Your task to perform on an android device: Add razer blade to the cart on walmart, then select checkout. Image 0: 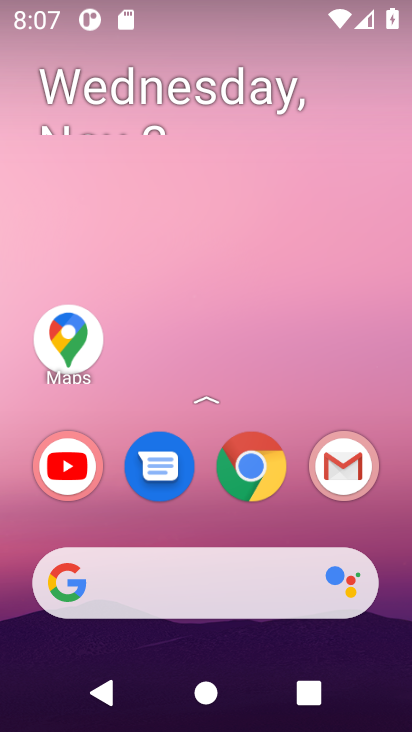
Step 0: click (171, 575)
Your task to perform on an android device: Add razer blade to the cart on walmart, then select checkout. Image 1: 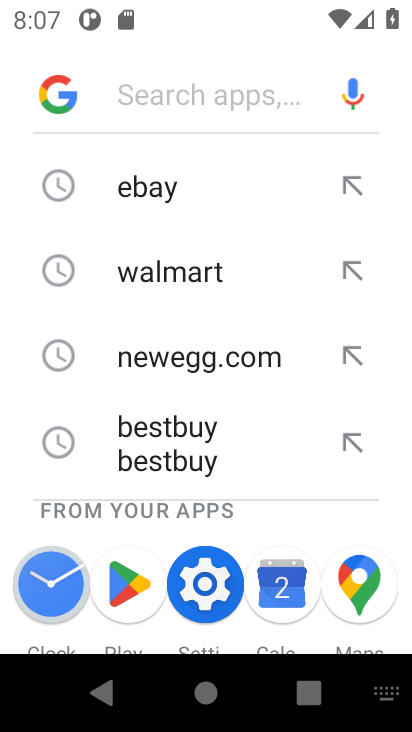
Step 1: click (199, 292)
Your task to perform on an android device: Add razer blade to the cart on walmart, then select checkout. Image 2: 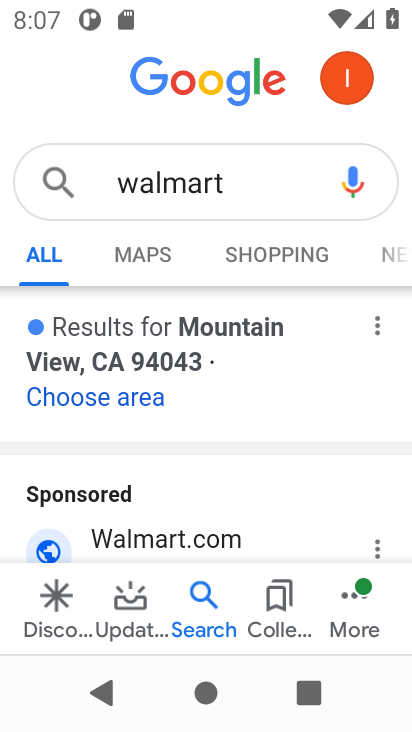
Step 2: drag from (209, 495) to (184, 225)
Your task to perform on an android device: Add razer blade to the cart on walmart, then select checkout. Image 3: 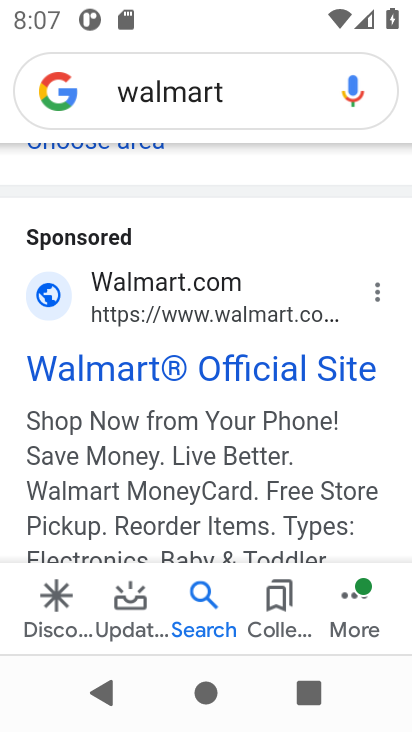
Step 3: click (174, 350)
Your task to perform on an android device: Add razer blade to the cart on walmart, then select checkout. Image 4: 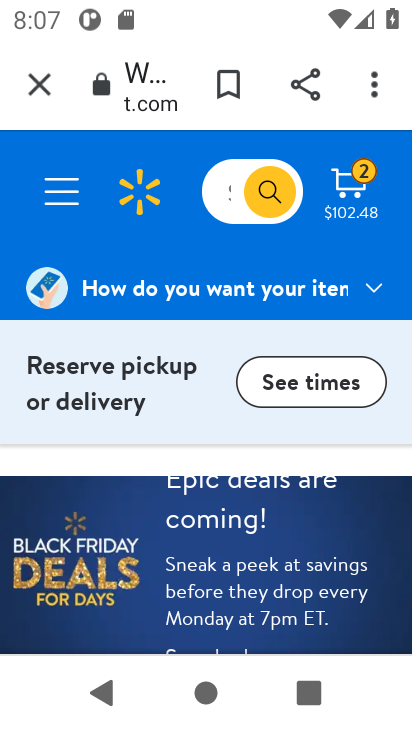
Step 4: click (239, 186)
Your task to perform on an android device: Add razer blade to the cart on walmart, then select checkout. Image 5: 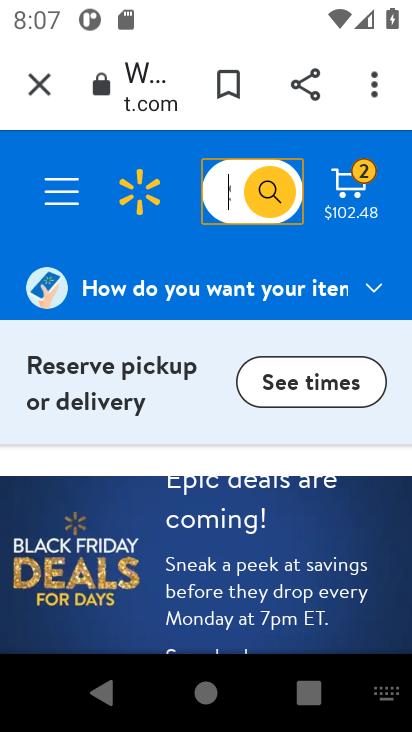
Step 5: type " razer blade"
Your task to perform on an android device: Add razer blade to the cart on walmart, then select checkout. Image 6: 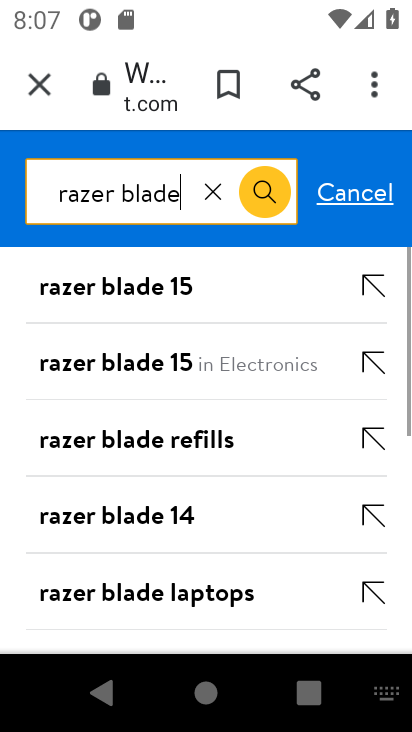
Step 6: click (255, 197)
Your task to perform on an android device: Add razer blade to the cart on walmart, then select checkout. Image 7: 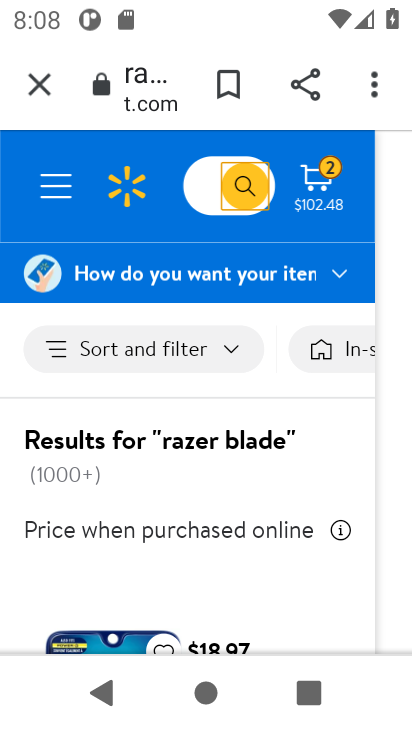
Step 7: drag from (212, 558) to (216, 360)
Your task to perform on an android device: Add razer blade to the cart on walmart, then select checkout. Image 8: 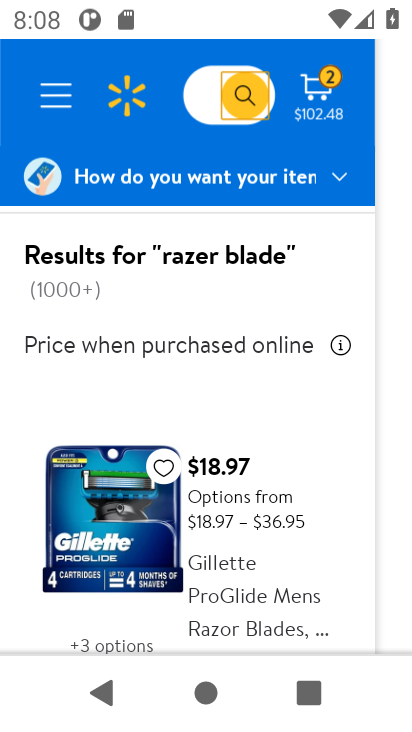
Step 8: drag from (257, 545) to (246, 382)
Your task to perform on an android device: Add razer blade to the cart on walmart, then select checkout. Image 9: 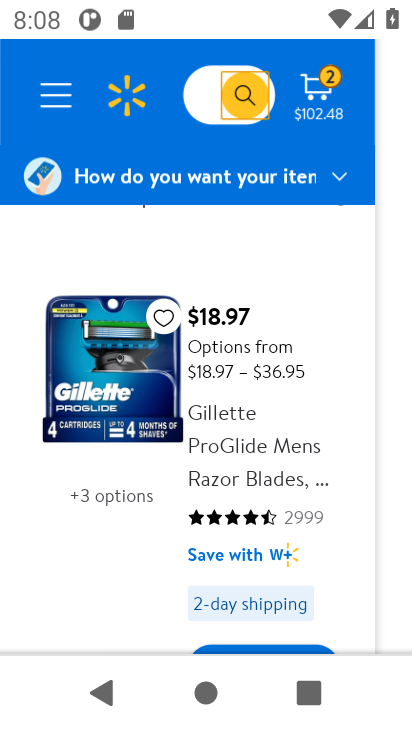
Step 9: drag from (332, 565) to (353, 321)
Your task to perform on an android device: Add razer blade to the cart on walmart, then select checkout. Image 10: 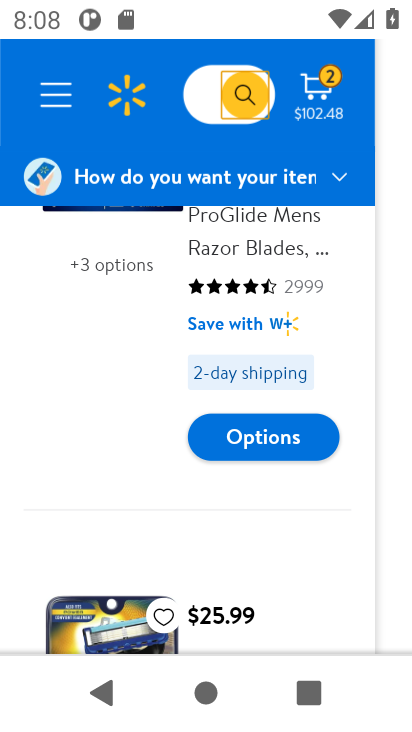
Step 10: drag from (292, 492) to (302, 575)
Your task to perform on an android device: Add razer blade to the cart on walmart, then select checkout. Image 11: 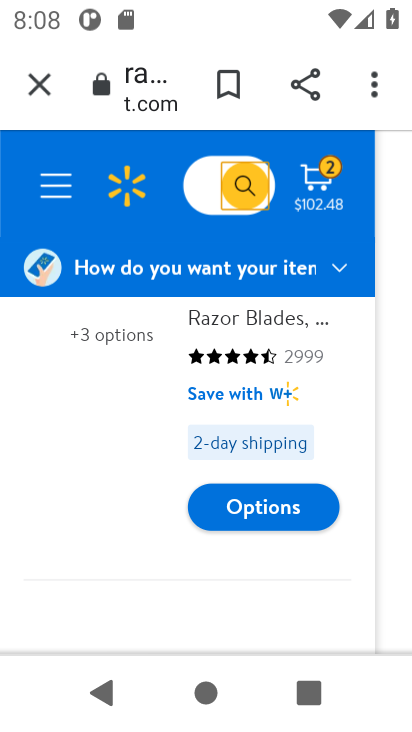
Step 11: drag from (353, 411) to (357, 526)
Your task to perform on an android device: Add razer blade to the cart on walmart, then select checkout. Image 12: 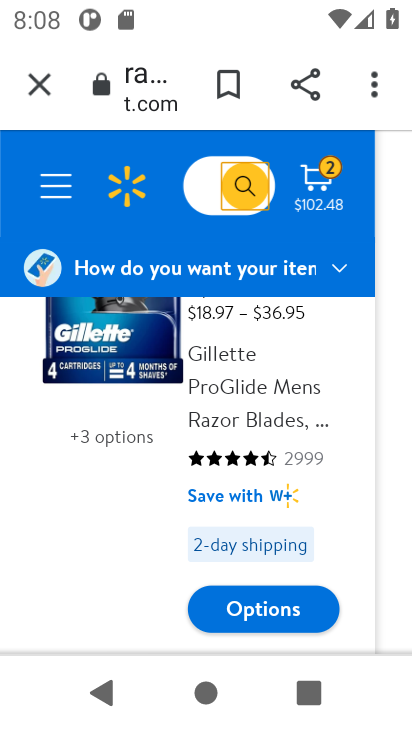
Step 12: click (254, 336)
Your task to perform on an android device: Add razer blade to the cart on walmart, then select checkout. Image 13: 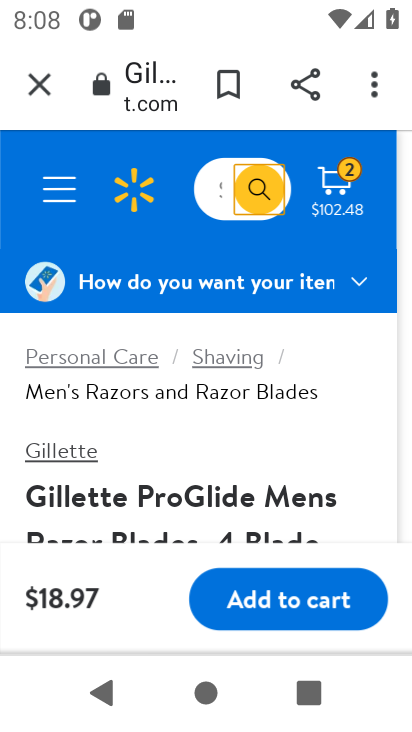
Step 13: click (287, 611)
Your task to perform on an android device: Add razer blade to the cart on walmart, then select checkout. Image 14: 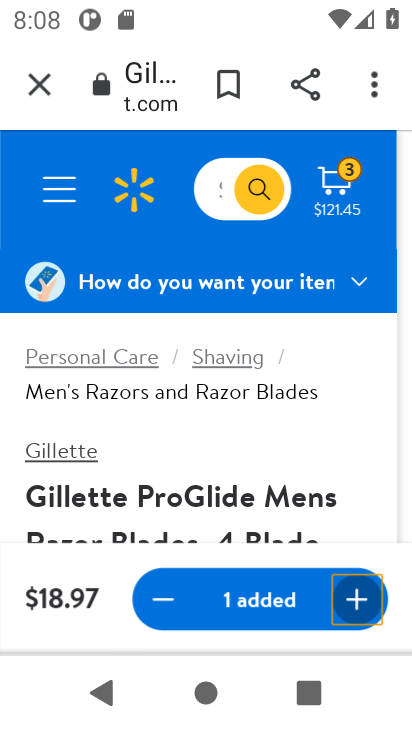
Step 14: click (340, 176)
Your task to perform on an android device: Add razer blade to the cart on walmart, then select checkout. Image 15: 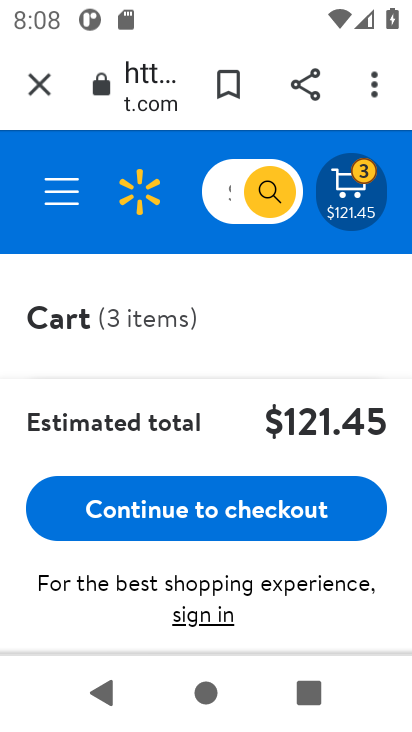
Step 15: click (344, 195)
Your task to perform on an android device: Add razer blade to the cart on walmart, then select checkout. Image 16: 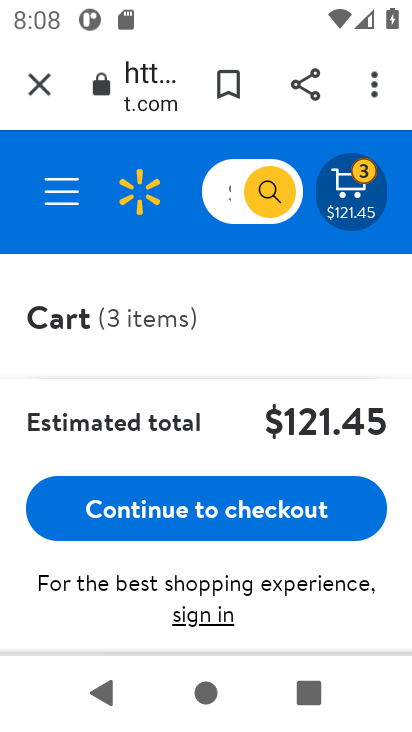
Step 16: click (206, 516)
Your task to perform on an android device: Add razer blade to the cart on walmart, then select checkout. Image 17: 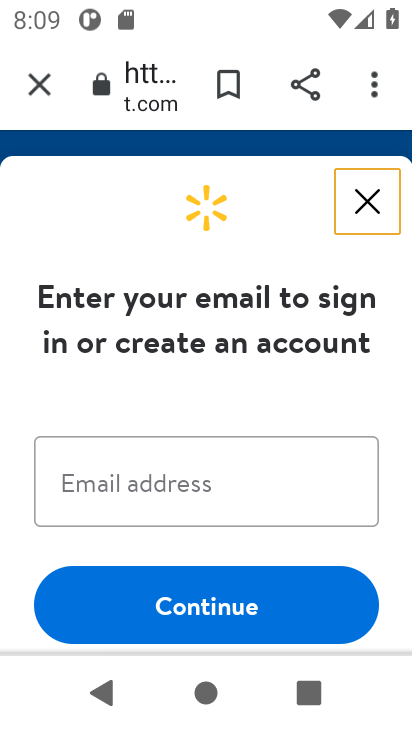
Step 17: task complete